Your task to perform on an android device: Open calendar and show me the fourth week of next month Image 0: 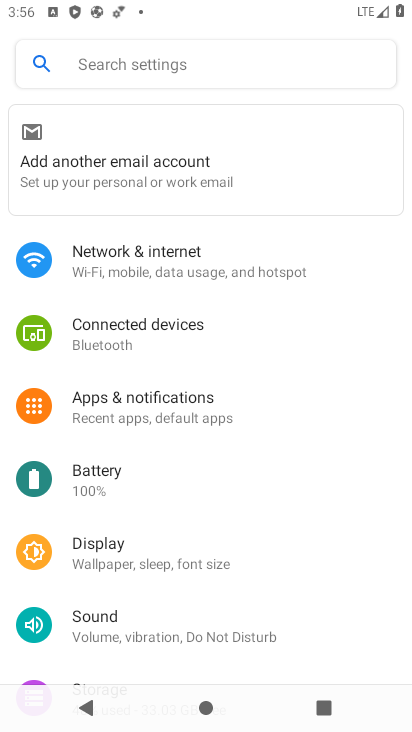
Step 0: press home button
Your task to perform on an android device: Open calendar and show me the fourth week of next month Image 1: 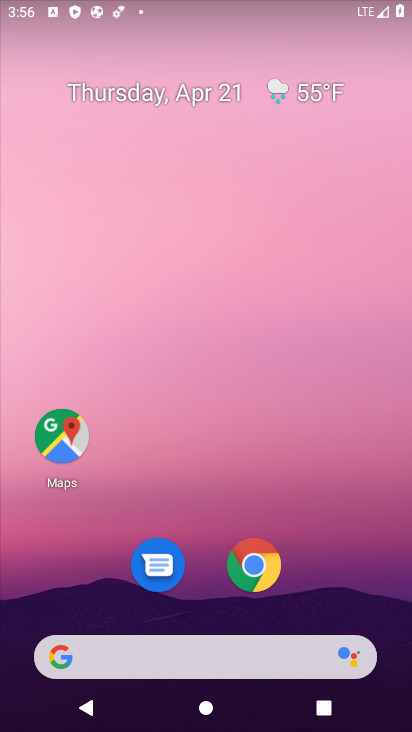
Step 1: drag from (333, 541) to (394, 99)
Your task to perform on an android device: Open calendar and show me the fourth week of next month Image 2: 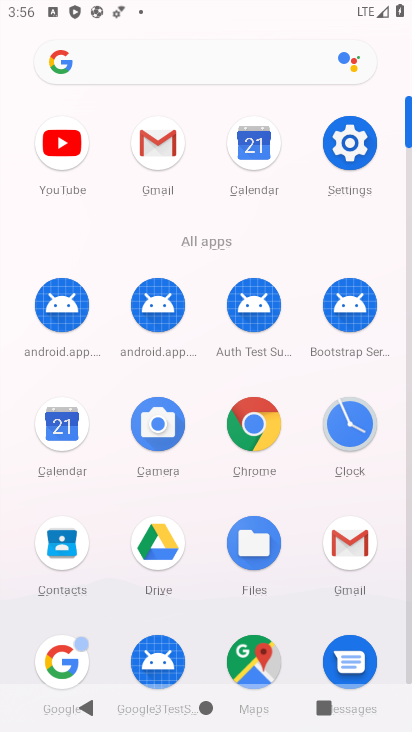
Step 2: click (65, 418)
Your task to perform on an android device: Open calendar and show me the fourth week of next month Image 3: 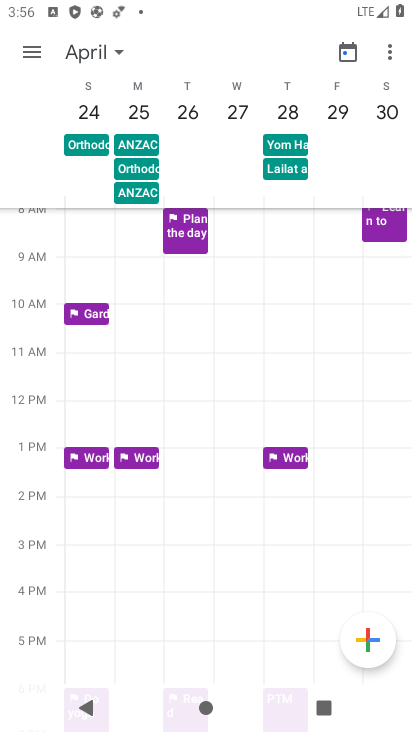
Step 3: task complete